Your task to perform on an android device: toggle pop-ups in chrome Image 0: 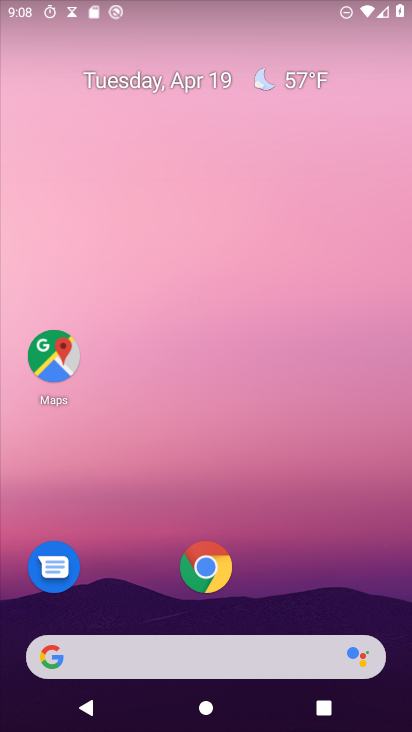
Step 0: drag from (291, 567) to (337, 8)
Your task to perform on an android device: toggle pop-ups in chrome Image 1: 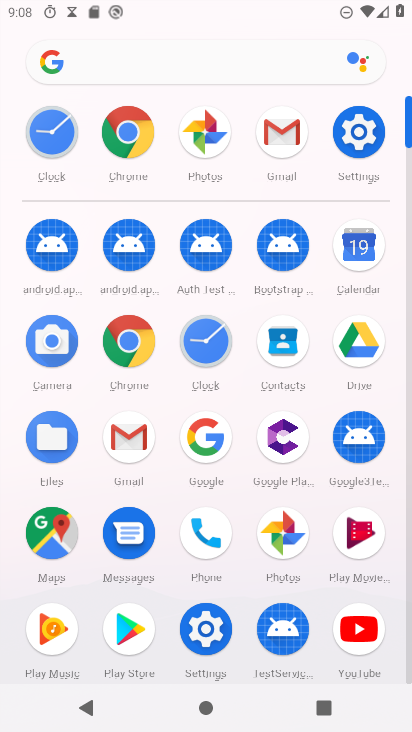
Step 1: click (130, 129)
Your task to perform on an android device: toggle pop-ups in chrome Image 2: 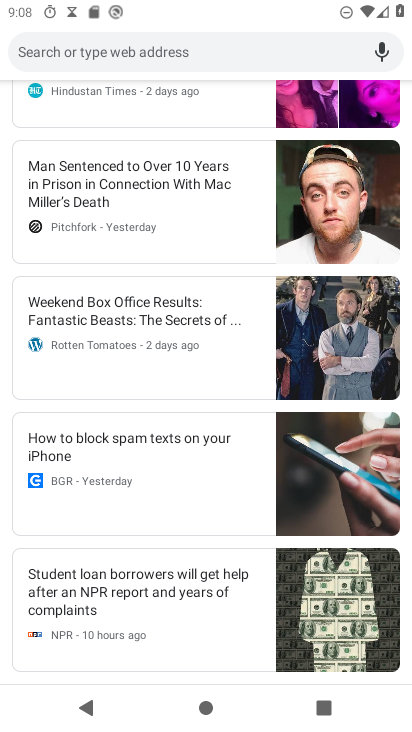
Step 2: drag from (168, 112) to (159, 454)
Your task to perform on an android device: toggle pop-ups in chrome Image 3: 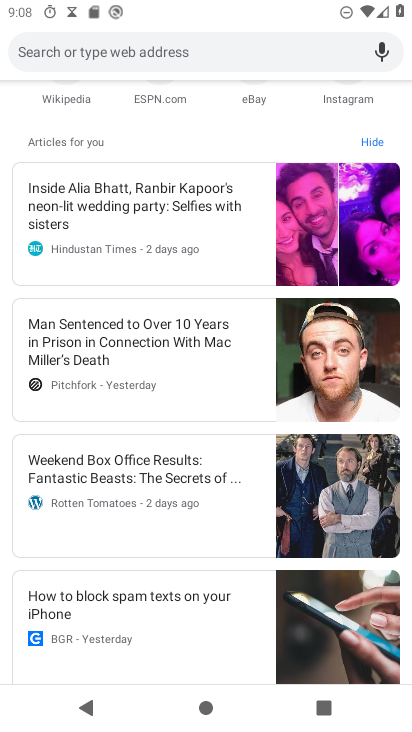
Step 3: click (119, 524)
Your task to perform on an android device: toggle pop-ups in chrome Image 4: 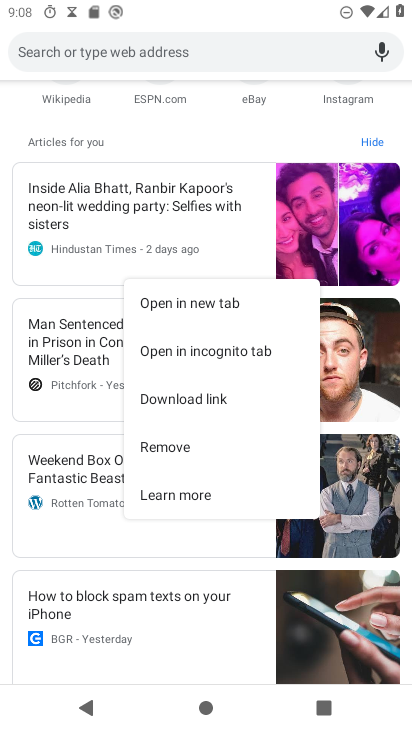
Step 4: drag from (187, 209) to (155, 510)
Your task to perform on an android device: toggle pop-ups in chrome Image 5: 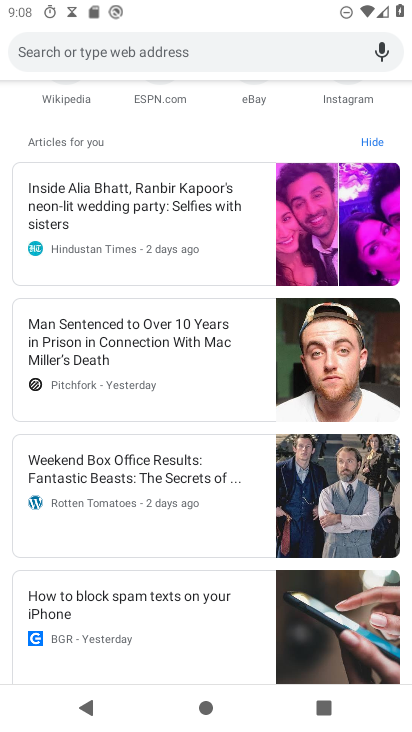
Step 5: drag from (120, 260) to (51, 616)
Your task to perform on an android device: toggle pop-ups in chrome Image 6: 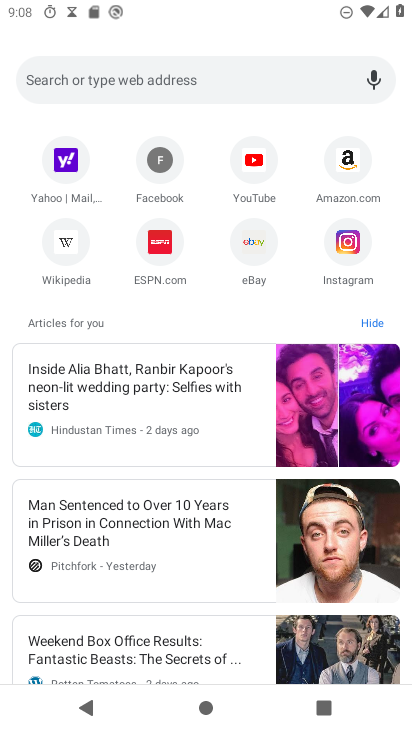
Step 6: drag from (113, 367) to (128, 639)
Your task to perform on an android device: toggle pop-ups in chrome Image 7: 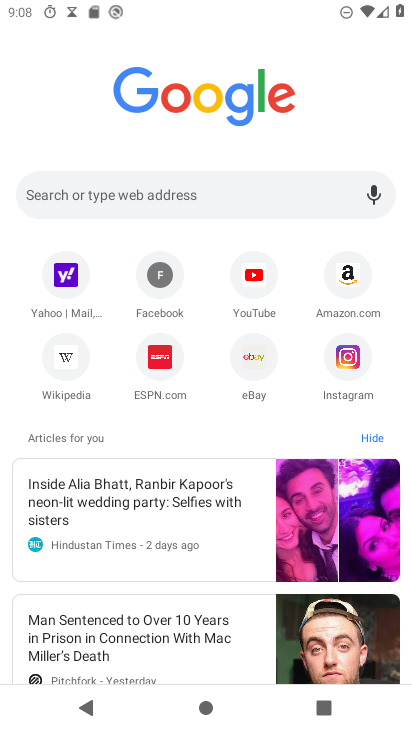
Step 7: drag from (291, 163) to (232, 530)
Your task to perform on an android device: toggle pop-ups in chrome Image 8: 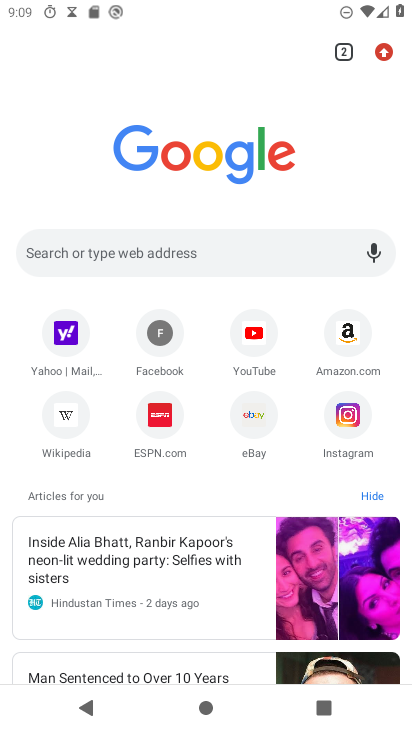
Step 8: drag from (380, 44) to (206, 480)
Your task to perform on an android device: toggle pop-ups in chrome Image 9: 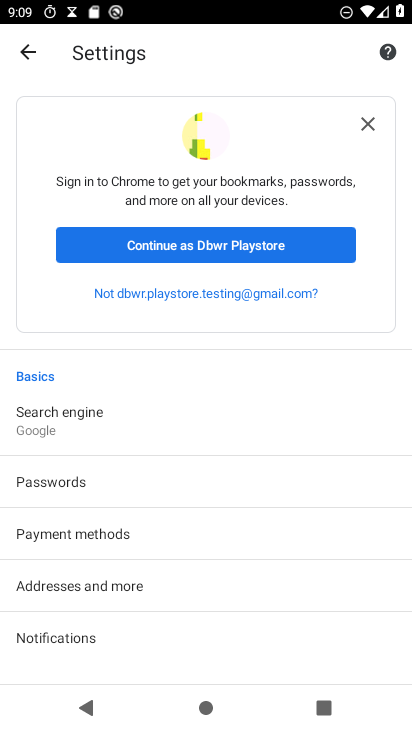
Step 9: drag from (243, 584) to (278, 264)
Your task to perform on an android device: toggle pop-ups in chrome Image 10: 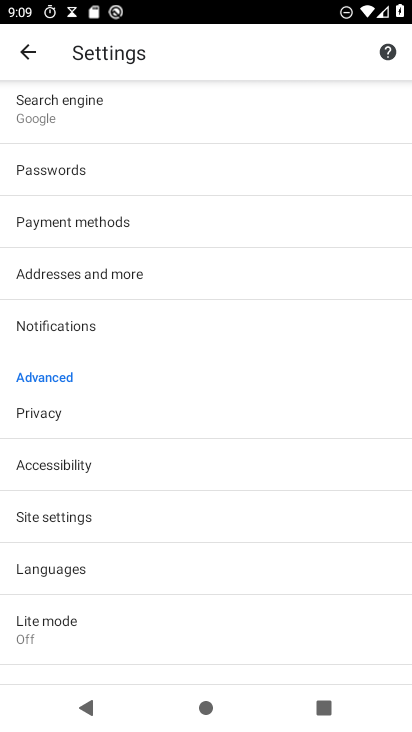
Step 10: click (126, 511)
Your task to perform on an android device: toggle pop-ups in chrome Image 11: 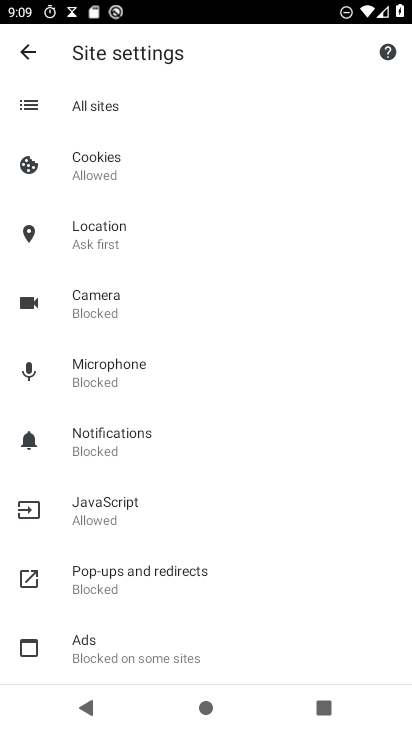
Step 11: click (111, 564)
Your task to perform on an android device: toggle pop-ups in chrome Image 12: 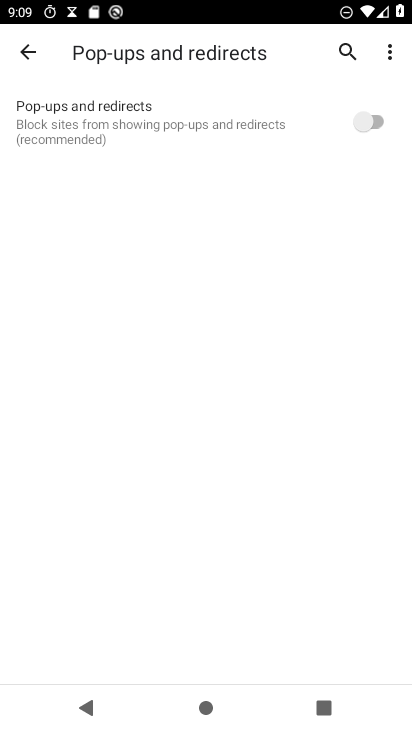
Step 12: click (361, 120)
Your task to perform on an android device: toggle pop-ups in chrome Image 13: 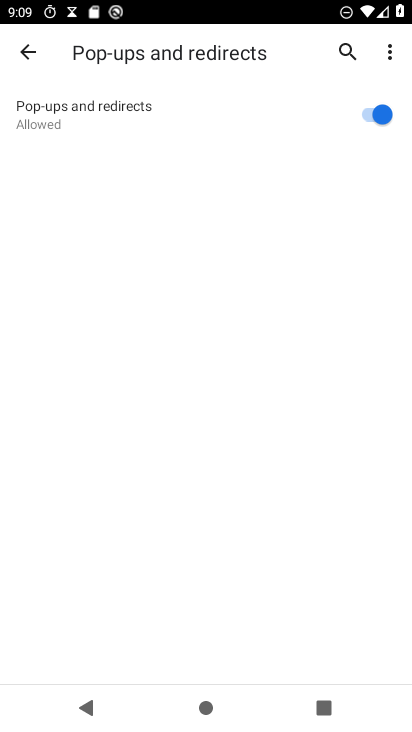
Step 13: task complete